Your task to perform on an android device: change the upload size in google photos Image 0: 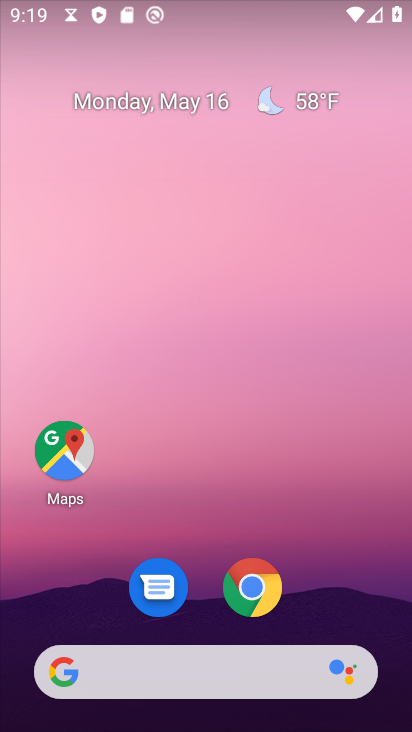
Step 0: drag from (310, 593) to (229, 8)
Your task to perform on an android device: change the upload size in google photos Image 1: 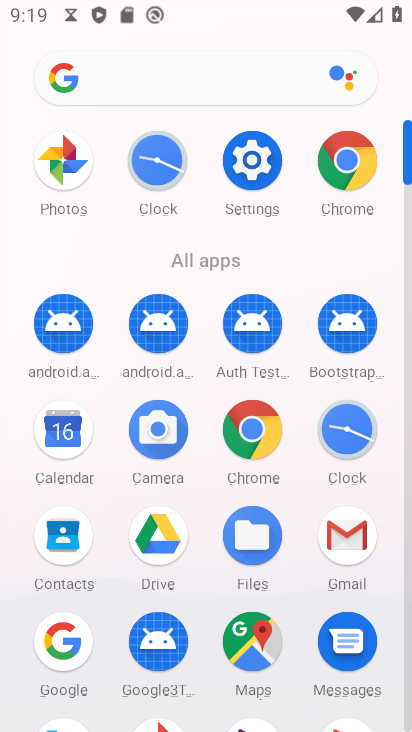
Step 1: click (70, 174)
Your task to perform on an android device: change the upload size in google photos Image 2: 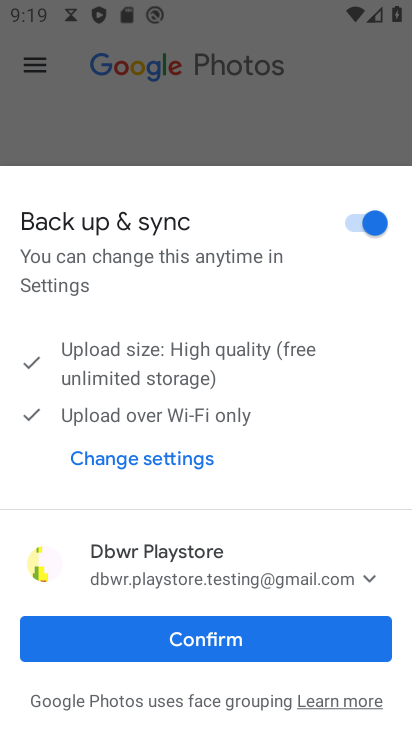
Step 2: click (214, 645)
Your task to perform on an android device: change the upload size in google photos Image 3: 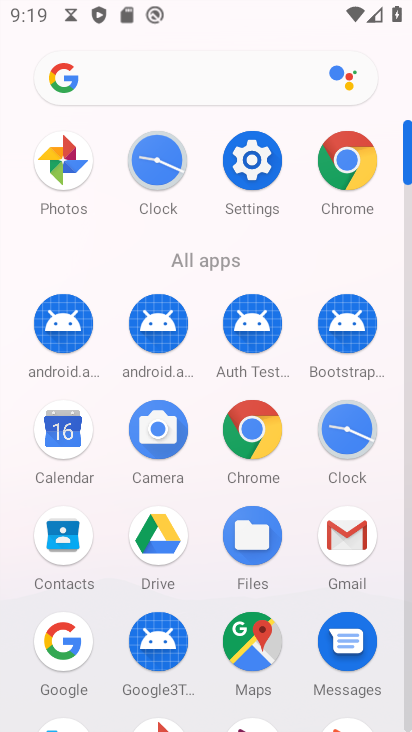
Step 3: drag from (200, 586) to (217, 297)
Your task to perform on an android device: change the upload size in google photos Image 4: 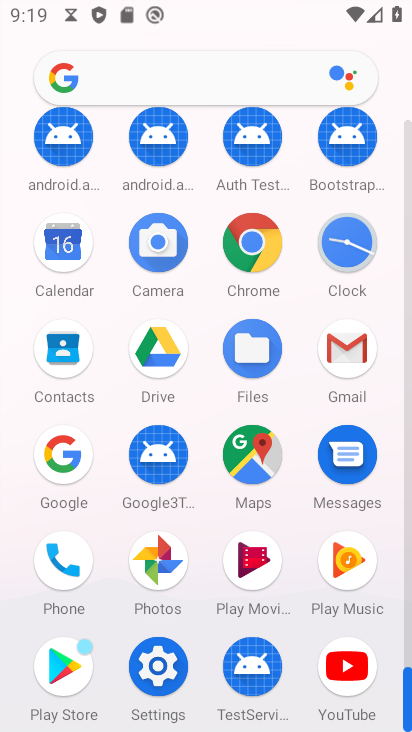
Step 4: click (159, 575)
Your task to perform on an android device: change the upload size in google photos Image 5: 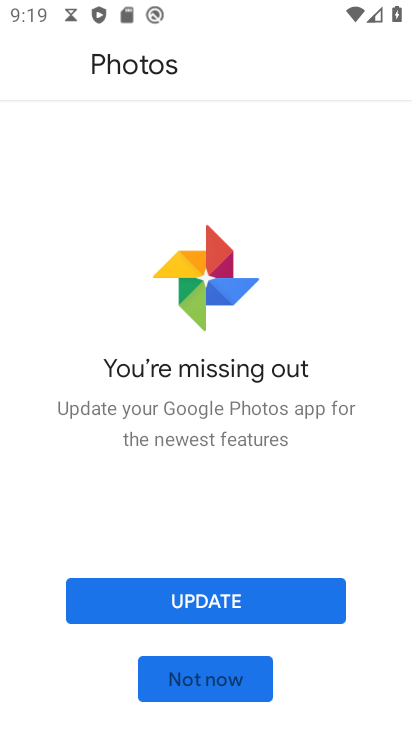
Step 5: click (226, 608)
Your task to perform on an android device: change the upload size in google photos Image 6: 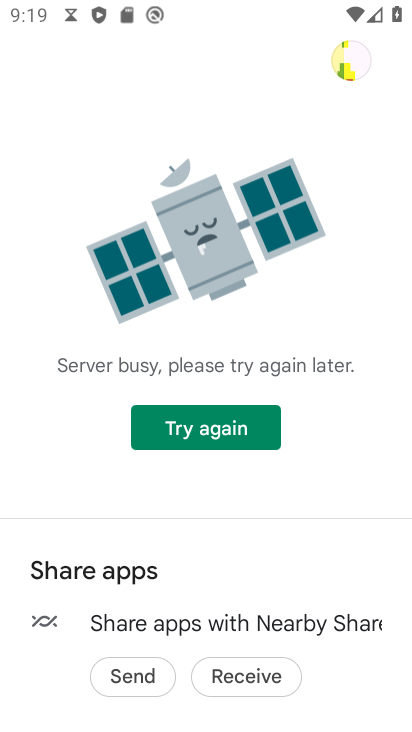
Step 6: task complete